Your task to perform on an android device: Go to calendar. Show me events next week Image 0: 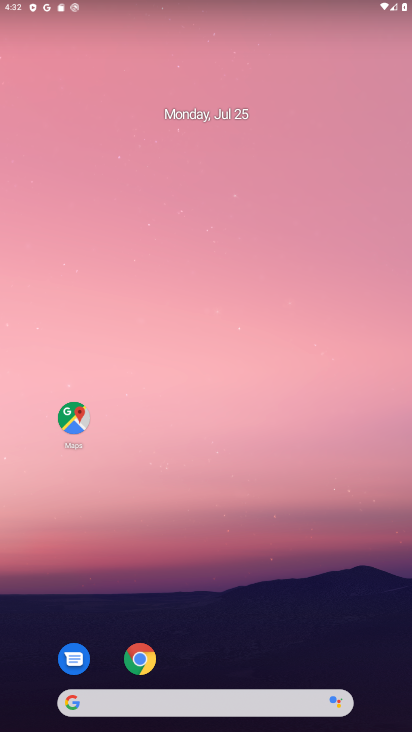
Step 0: drag from (202, 645) to (228, 241)
Your task to perform on an android device: Go to calendar. Show me events next week Image 1: 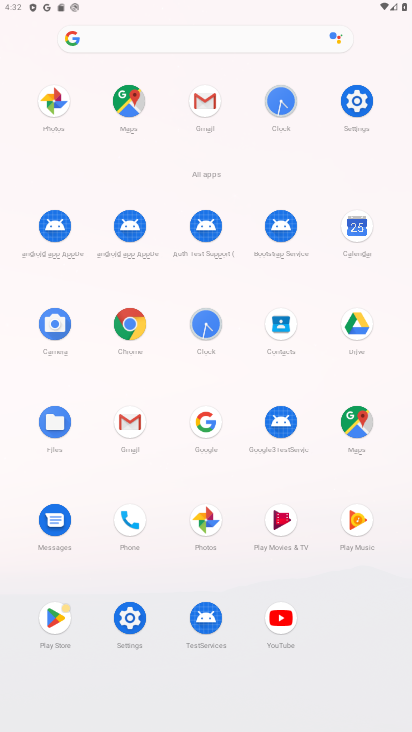
Step 1: click (362, 252)
Your task to perform on an android device: Go to calendar. Show me events next week Image 2: 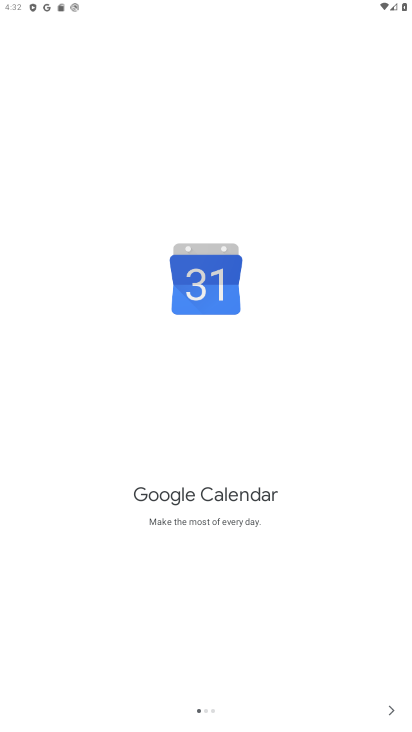
Step 2: click (394, 708)
Your task to perform on an android device: Go to calendar. Show me events next week Image 3: 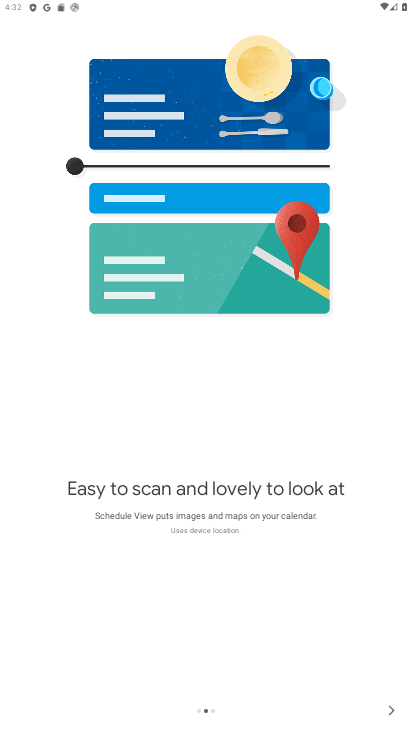
Step 3: click (394, 708)
Your task to perform on an android device: Go to calendar. Show me events next week Image 4: 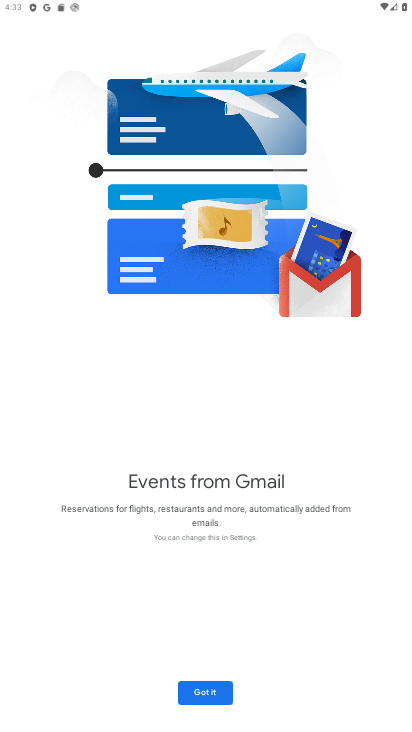
Step 4: click (196, 683)
Your task to perform on an android device: Go to calendar. Show me events next week Image 5: 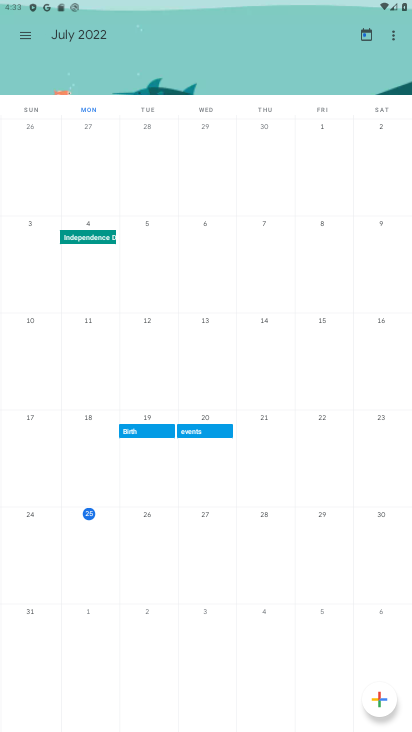
Step 5: task complete